Your task to perform on an android device: change text size in settings app Image 0: 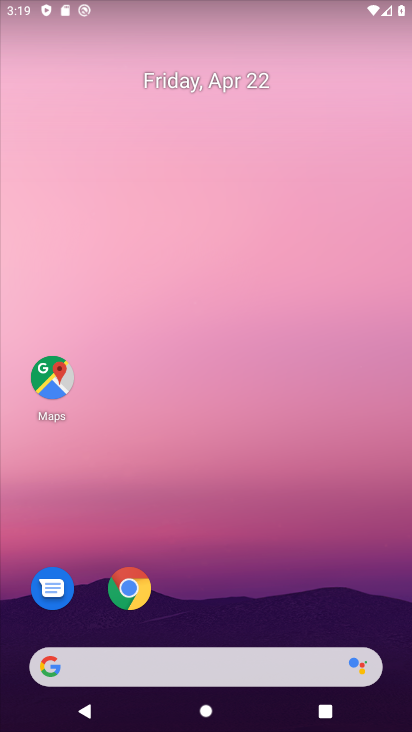
Step 0: drag from (158, 469) to (224, 5)
Your task to perform on an android device: change text size in settings app Image 1: 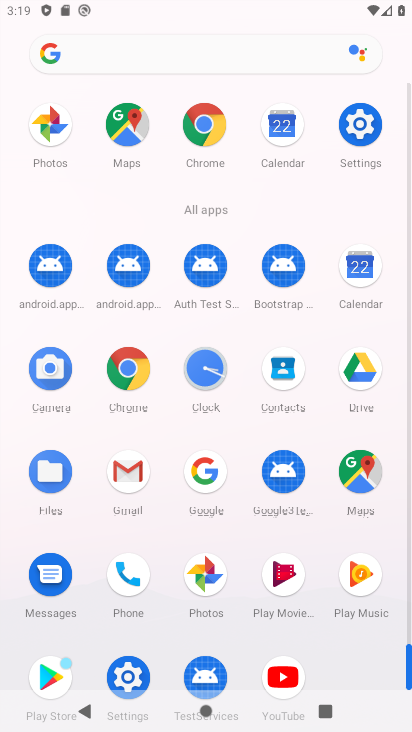
Step 1: click (133, 677)
Your task to perform on an android device: change text size in settings app Image 2: 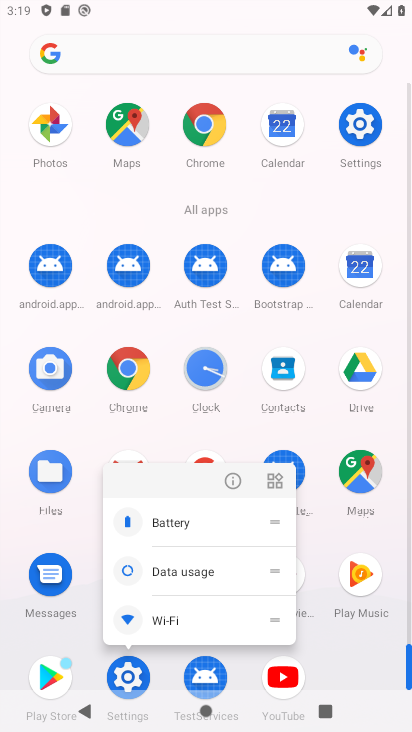
Step 2: click (126, 674)
Your task to perform on an android device: change text size in settings app Image 3: 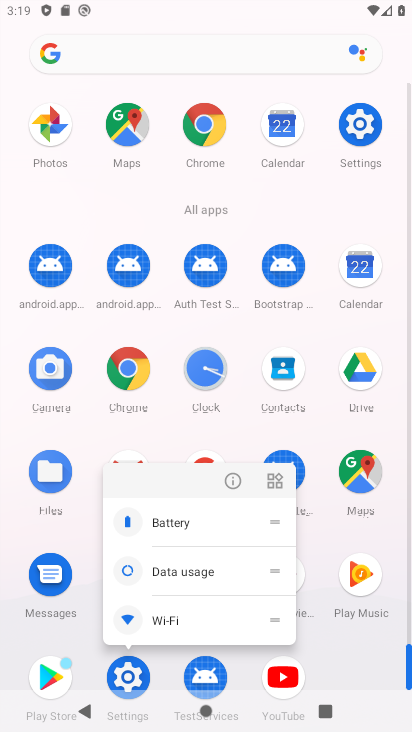
Step 3: click (126, 674)
Your task to perform on an android device: change text size in settings app Image 4: 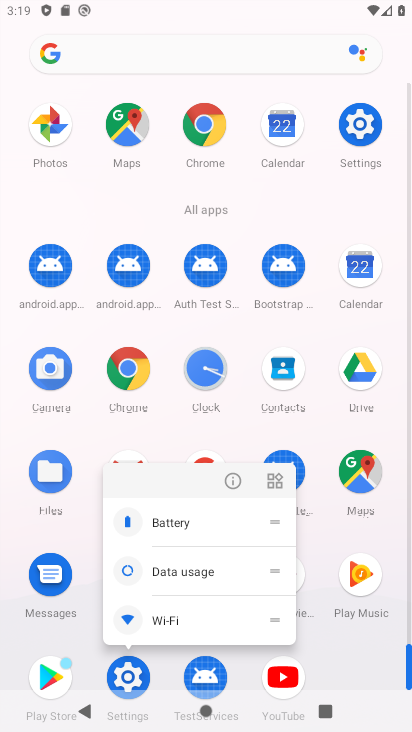
Step 4: click (126, 672)
Your task to perform on an android device: change text size in settings app Image 5: 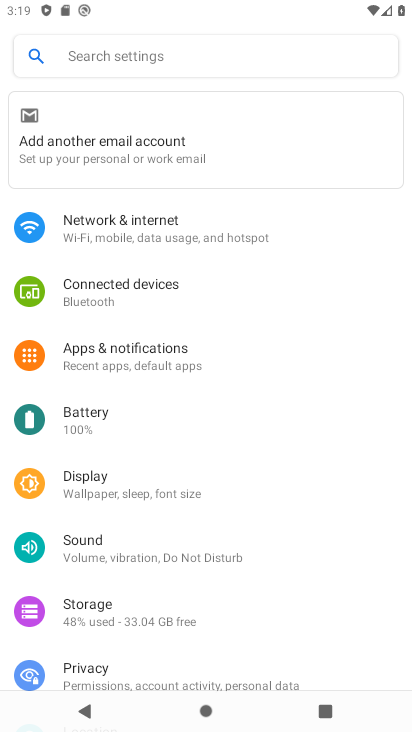
Step 5: drag from (385, 628) to (403, 414)
Your task to perform on an android device: change text size in settings app Image 6: 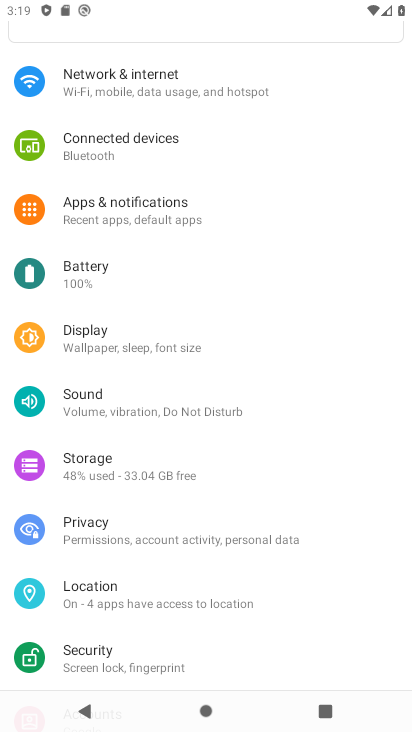
Step 6: click (170, 341)
Your task to perform on an android device: change text size in settings app Image 7: 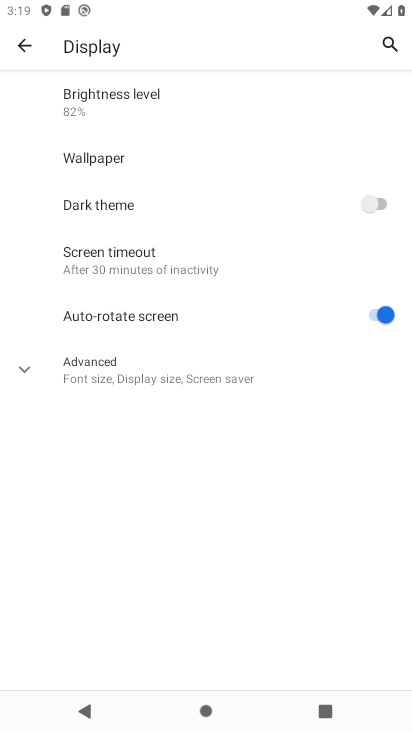
Step 7: click (153, 366)
Your task to perform on an android device: change text size in settings app Image 8: 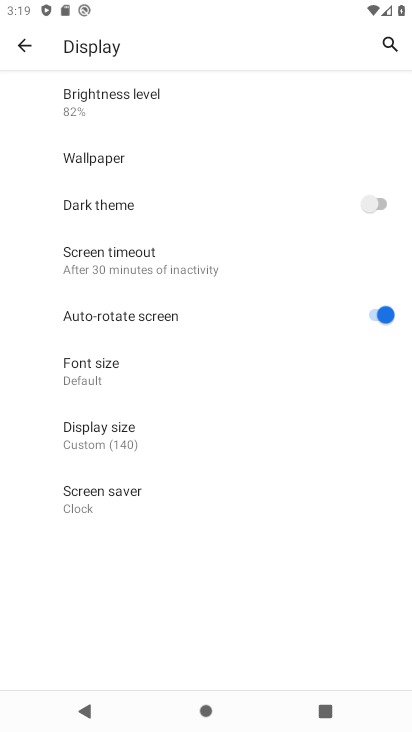
Step 8: click (128, 374)
Your task to perform on an android device: change text size in settings app Image 9: 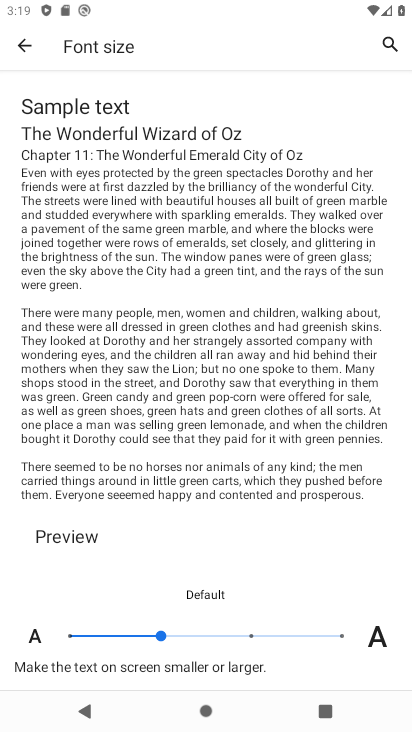
Step 9: task complete